Your task to perform on an android device: Is it going to rain tomorrow? Image 0: 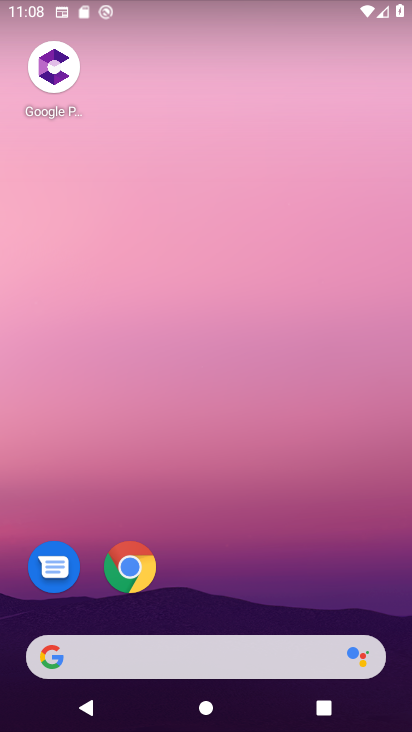
Step 0: click (410, 407)
Your task to perform on an android device: Is it going to rain tomorrow? Image 1: 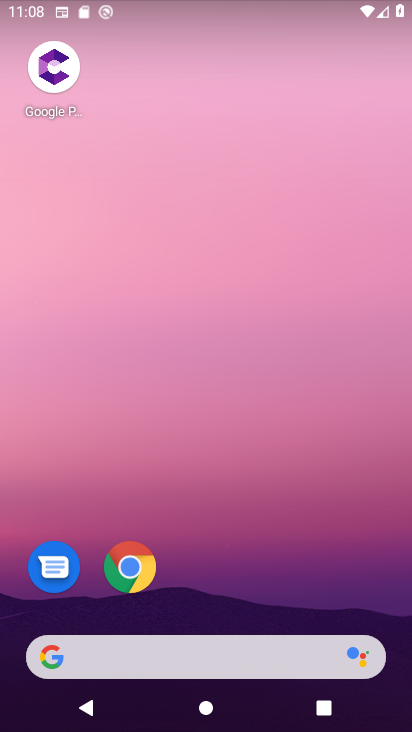
Step 1: click (193, 658)
Your task to perform on an android device: Is it going to rain tomorrow? Image 2: 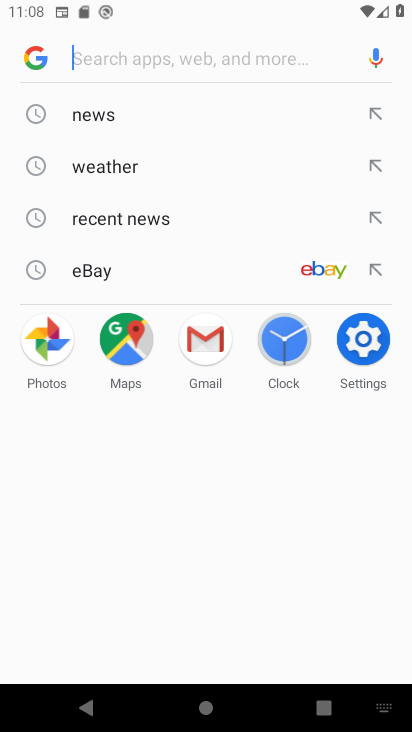
Step 2: click (183, 164)
Your task to perform on an android device: Is it going to rain tomorrow? Image 3: 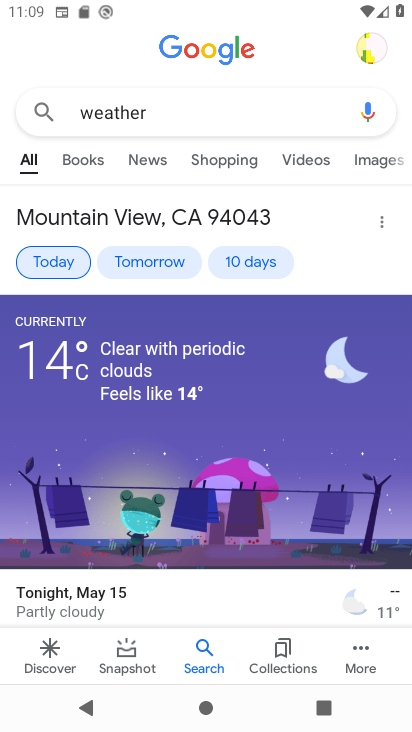
Step 3: click (153, 260)
Your task to perform on an android device: Is it going to rain tomorrow? Image 4: 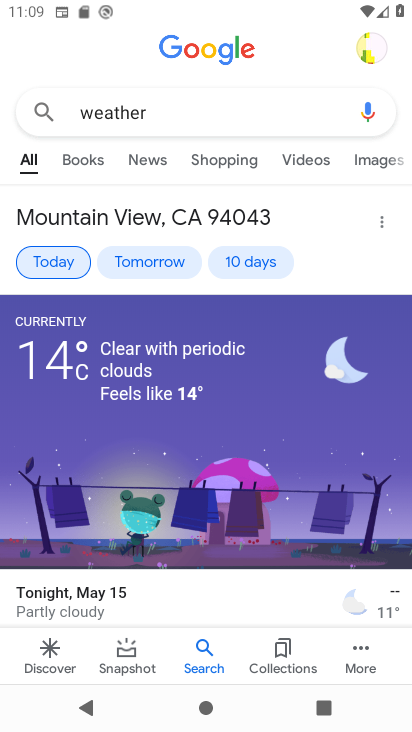
Step 4: click (153, 260)
Your task to perform on an android device: Is it going to rain tomorrow? Image 5: 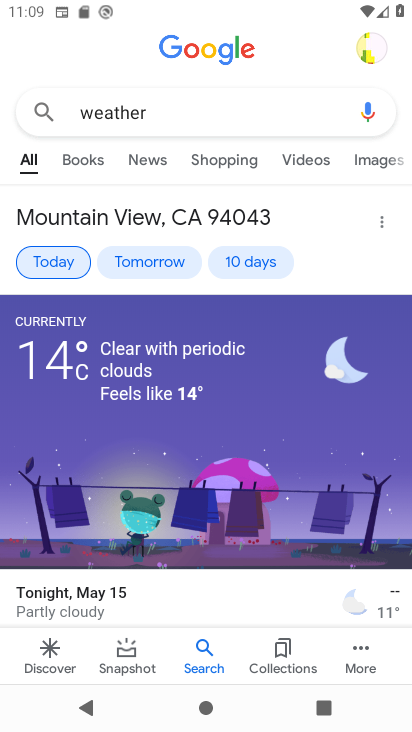
Step 5: click (153, 260)
Your task to perform on an android device: Is it going to rain tomorrow? Image 6: 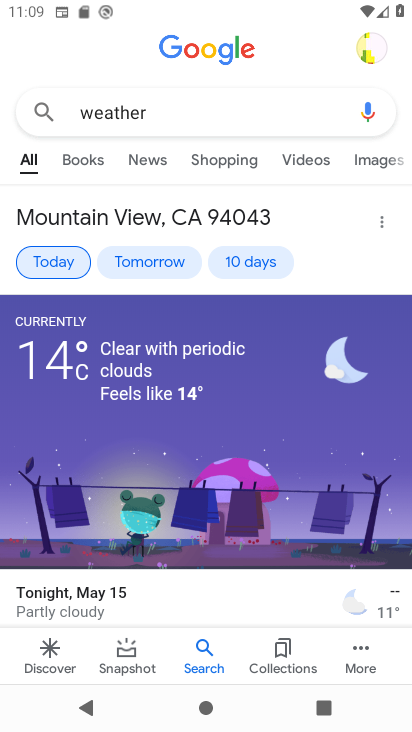
Step 6: click (153, 260)
Your task to perform on an android device: Is it going to rain tomorrow? Image 7: 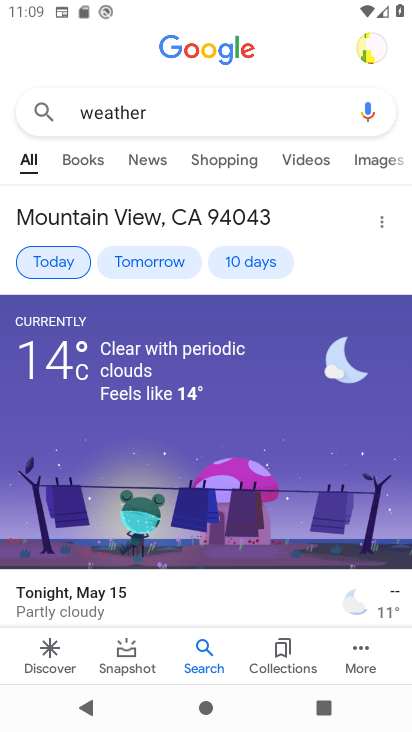
Step 7: click (153, 260)
Your task to perform on an android device: Is it going to rain tomorrow? Image 8: 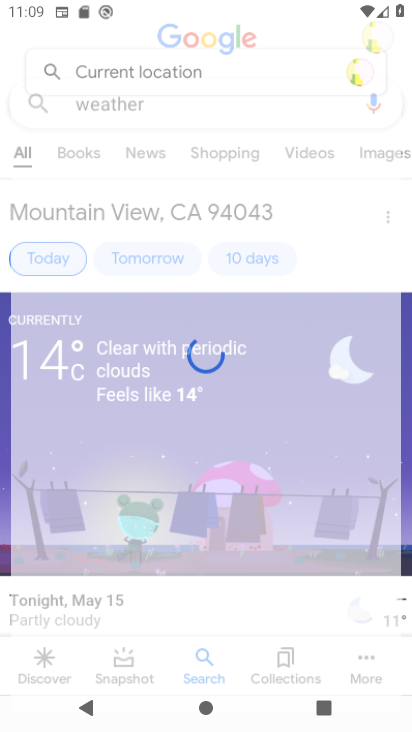
Step 8: click (153, 260)
Your task to perform on an android device: Is it going to rain tomorrow? Image 9: 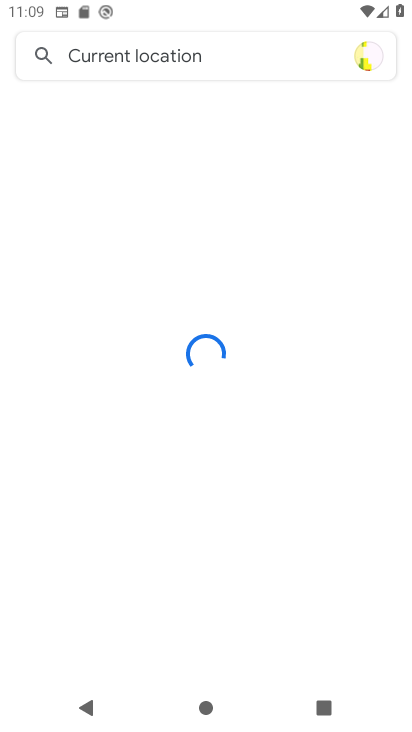
Step 9: click (153, 260)
Your task to perform on an android device: Is it going to rain tomorrow? Image 10: 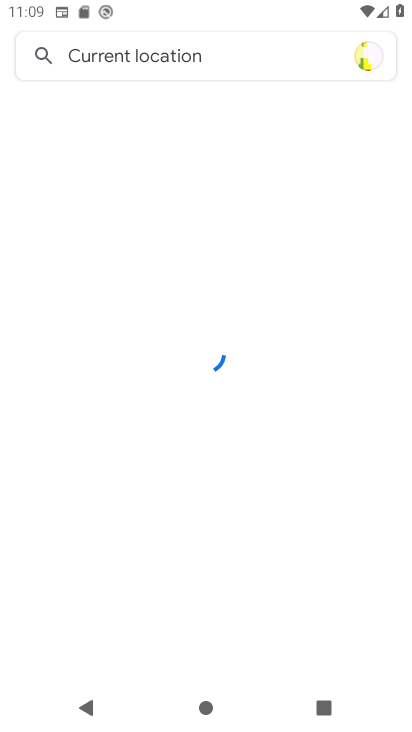
Step 10: click (153, 260)
Your task to perform on an android device: Is it going to rain tomorrow? Image 11: 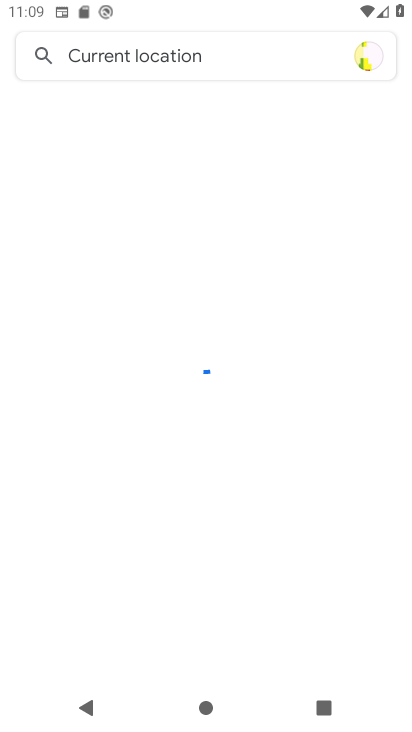
Step 11: click (153, 260)
Your task to perform on an android device: Is it going to rain tomorrow? Image 12: 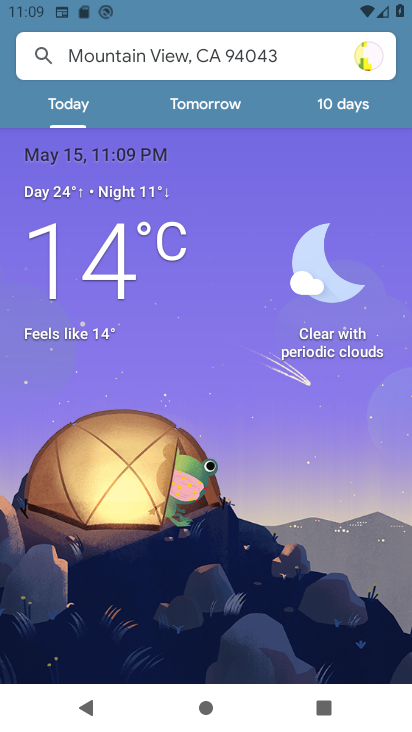
Step 12: click (203, 101)
Your task to perform on an android device: Is it going to rain tomorrow? Image 13: 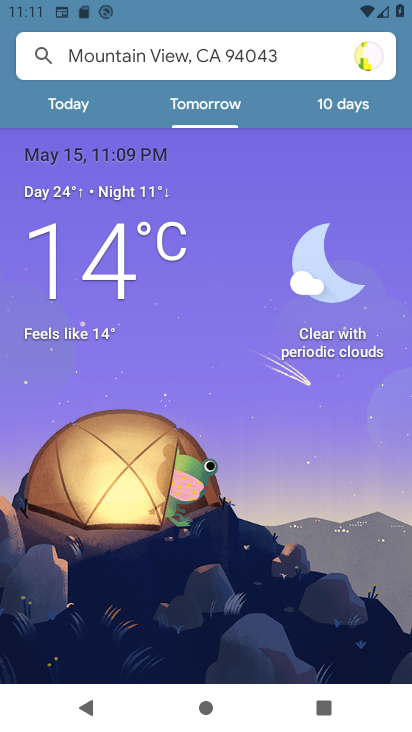
Step 13: task complete